Your task to perform on an android device: Do I have any events today? Image 0: 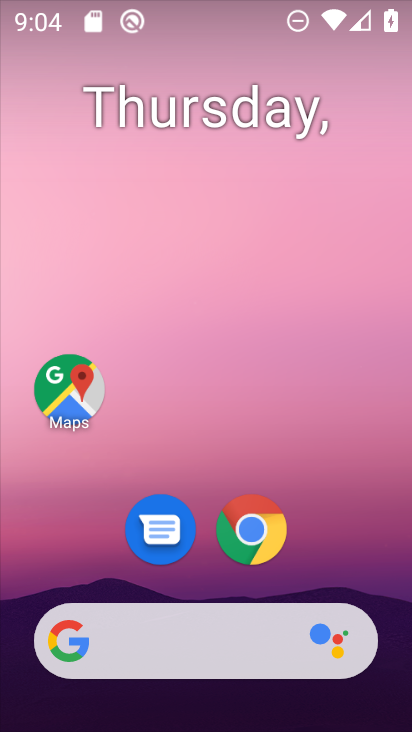
Step 0: drag from (231, 720) to (238, 57)
Your task to perform on an android device: Do I have any events today? Image 1: 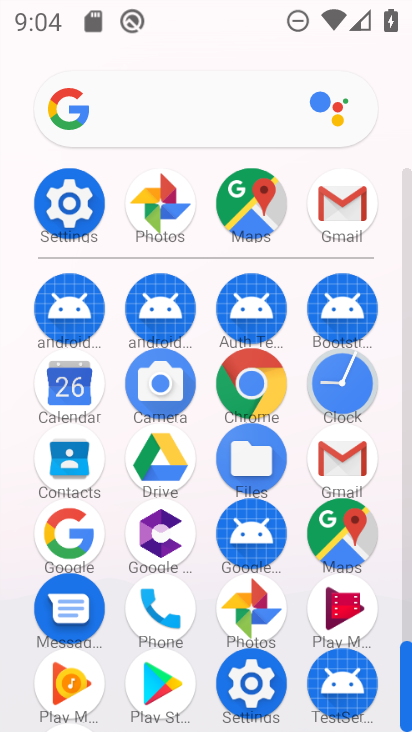
Step 1: click (64, 393)
Your task to perform on an android device: Do I have any events today? Image 2: 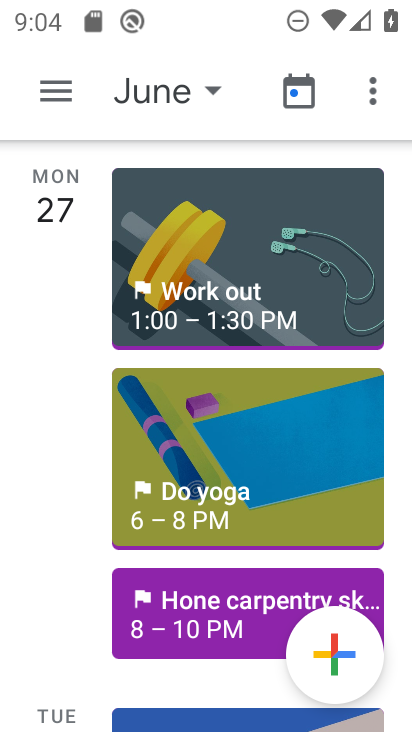
Step 2: click (58, 82)
Your task to perform on an android device: Do I have any events today? Image 3: 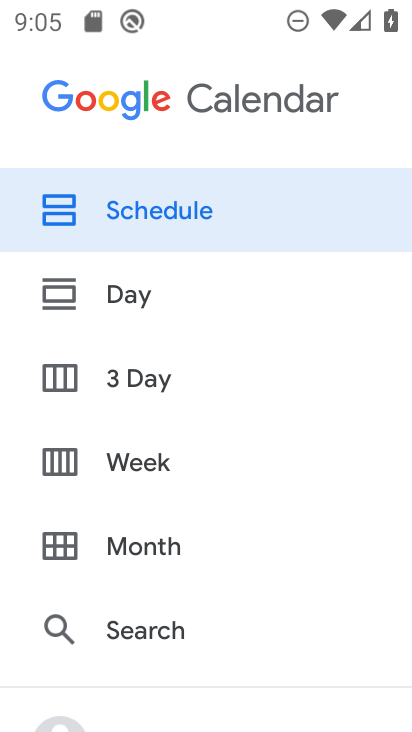
Step 3: drag from (178, 703) to (190, 256)
Your task to perform on an android device: Do I have any events today? Image 4: 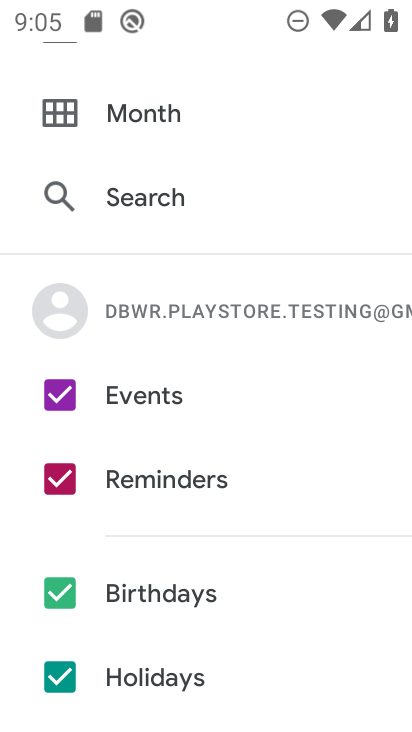
Step 4: click (50, 685)
Your task to perform on an android device: Do I have any events today? Image 5: 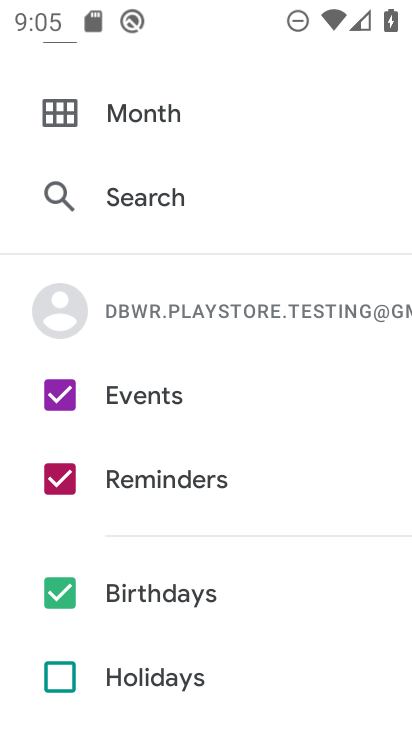
Step 5: click (59, 585)
Your task to perform on an android device: Do I have any events today? Image 6: 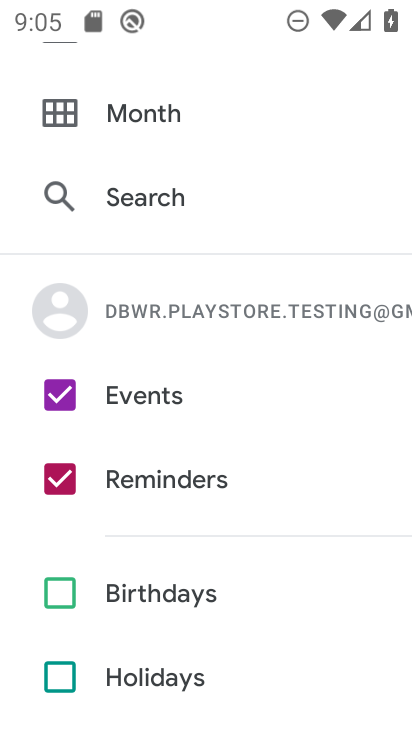
Step 6: click (56, 481)
Your task to perform on an android device: Do I have any events today? Image 7: 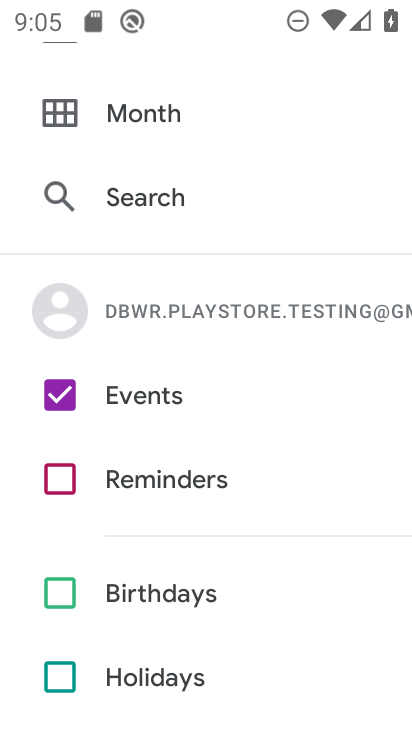
Step 7: drag from (318, 245) to (324, 616)
Your task to perform on an android device: Do I have any events today? Image 8: 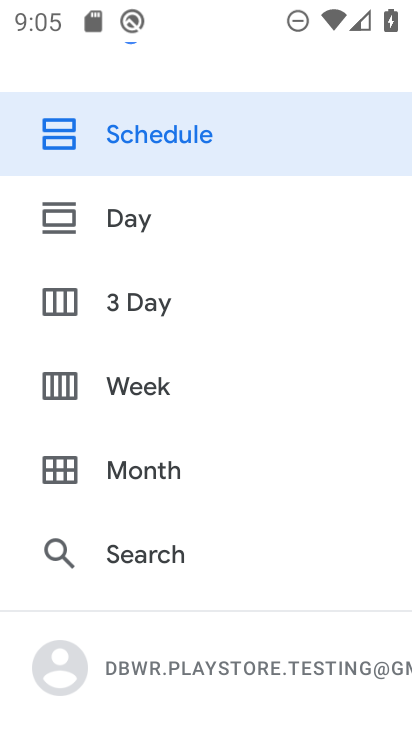
Step 8: click (182, 137)
Your task to perform on an android device: Do I have any events today? Image 9: 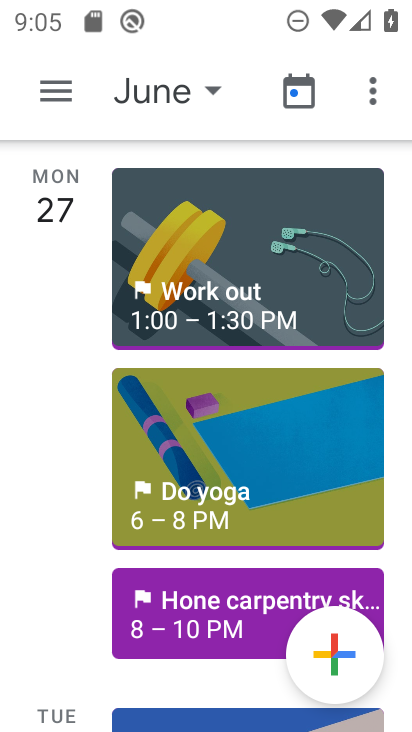
Step 9: click (179, 86)
Your task to perform on an android device: Do I have any events today? Image 10: 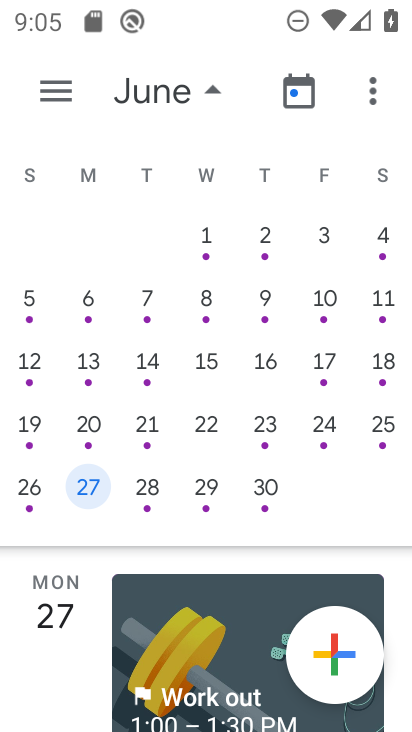
Step 10: click (88, 483)
Your task to perform on an android device: Do I have any events today? Image 11: 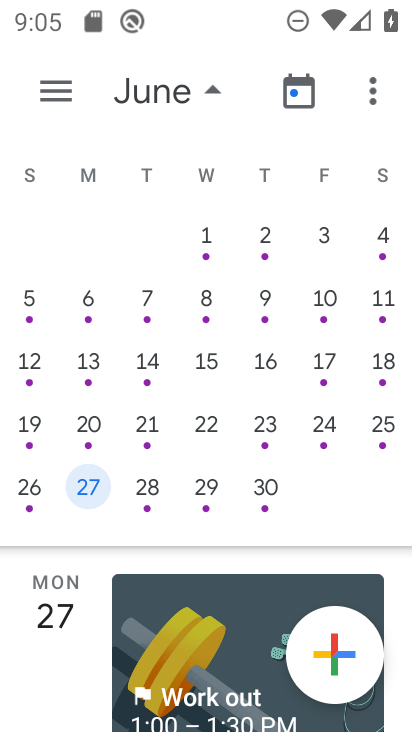
Step 11: click (210, 84)
Your task to perform on an android device: Do I have any events today? Image 12: 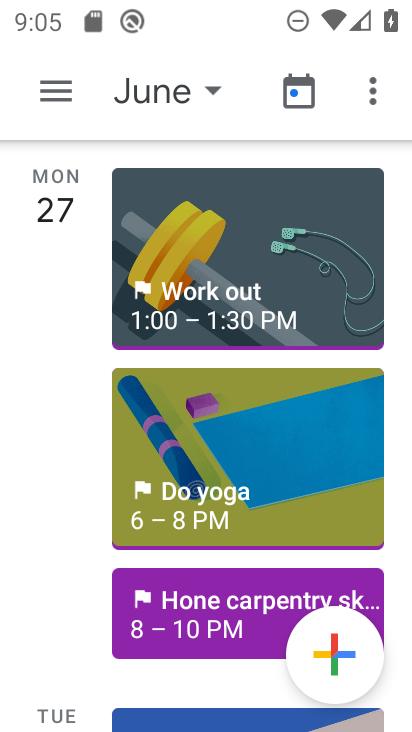
Step 12: task complete